Your task to perform on an android device: Open Yahoo.com Image 0: 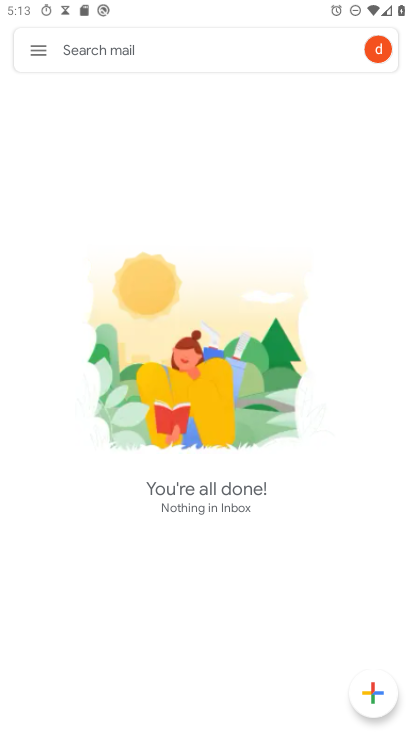
Step 0: press home button
Your task to perform on an android device: Open Yahoo.com Image 1: 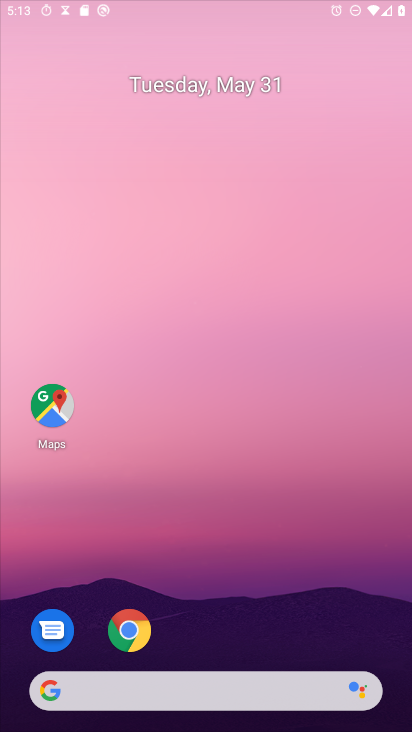
Step 1: drag from (305, 678) to (266, 34)
Your task to perform on an android device: Open Yahoo.com Image 2: 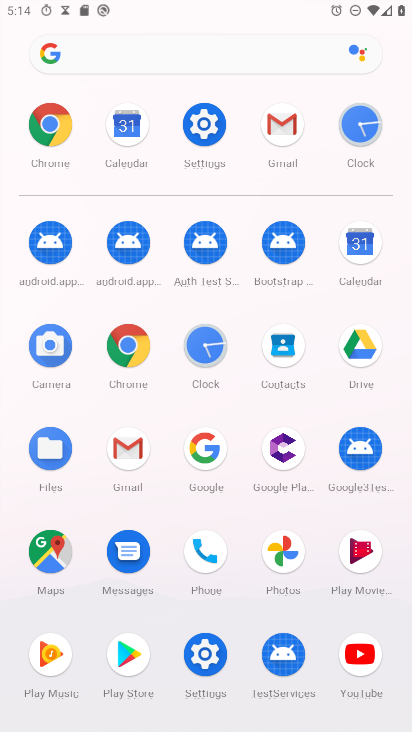
Step 2: click (116, 351)
Your task to perform on an android device: Open Yahoo.com Image 3: 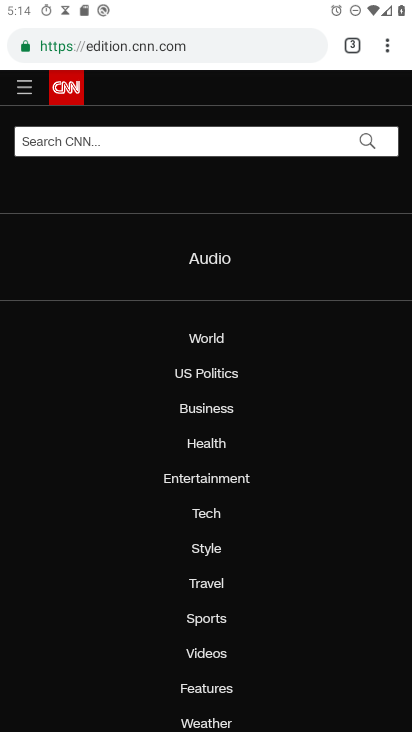
Step 3: click (141, 41)
Your task to perform on an android device: Open Yahoo.com Image 4: 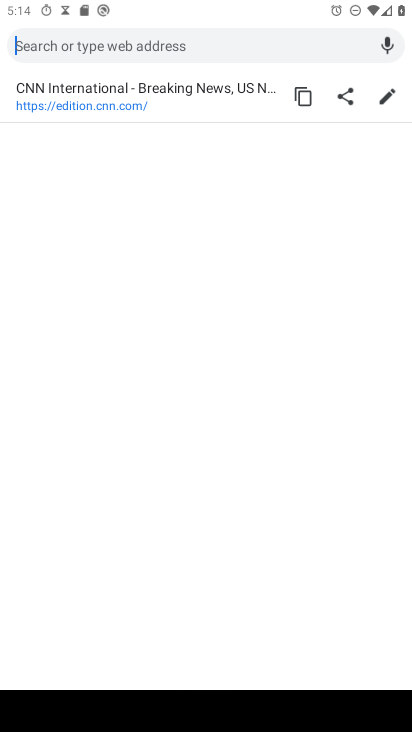
Step 4: type "yahoo.com"
Your task to perform on an android device: Open Yahoo.com Image 5: 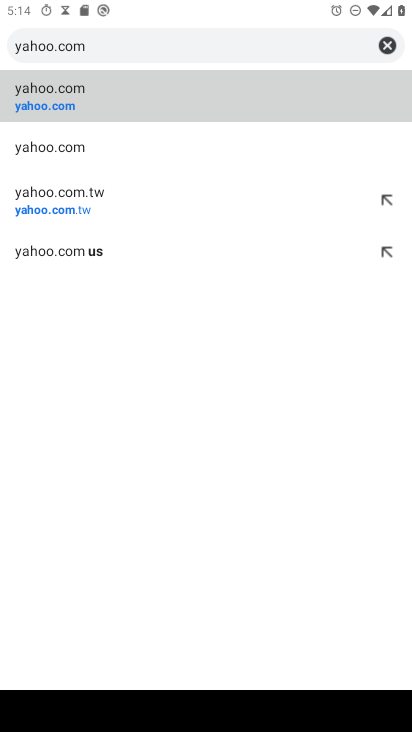
Step 5: click (52, 96)
Your task to perform on an android device: Open Yahoo.com Image 6: 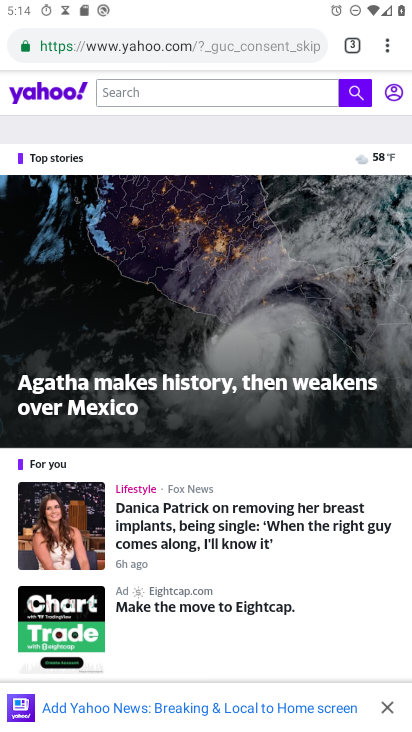
Step 6: task complete